Your task to perform on an android device: Go to Yahoo.com Image 0: 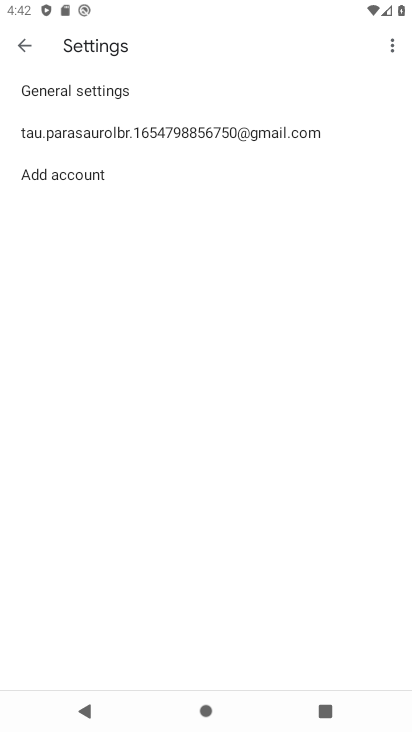
Step 0: press home button
Your task to perform on an android device: Go to Yahoo.com Image 1: 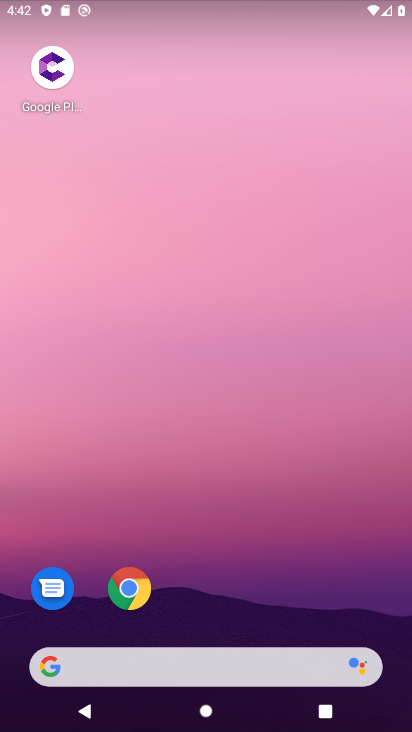
Step 1: click (134, 595)
Your task to perform on an android device: Go to Yahoo.com Image 2: 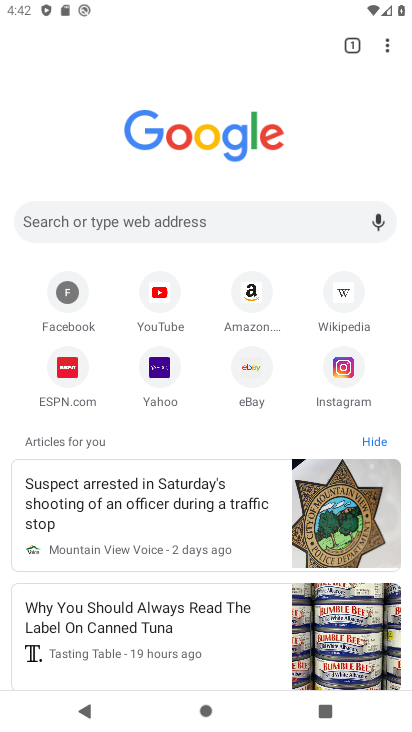
Step 2: click (158, 381)
Your task to perform on an android device: Go to Yahoo.com Image 3: 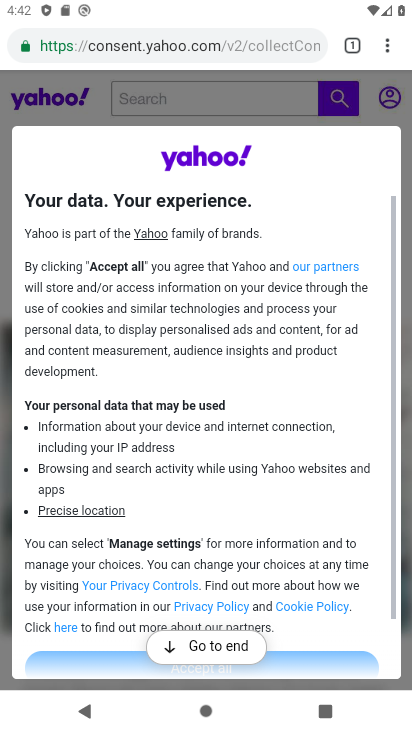
Step 3: task complete